Your task to perform on an android device: turn off data saver in the chrome app Image 0: 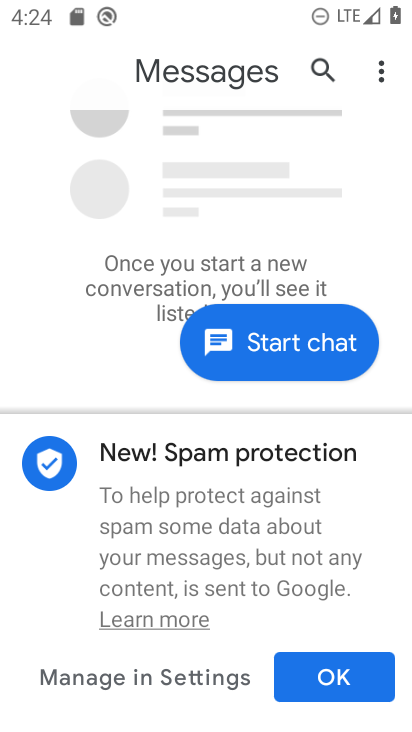
Step 0: press home button
Your task to perform on an android device: turn off data saver in the chrome app Image 1: 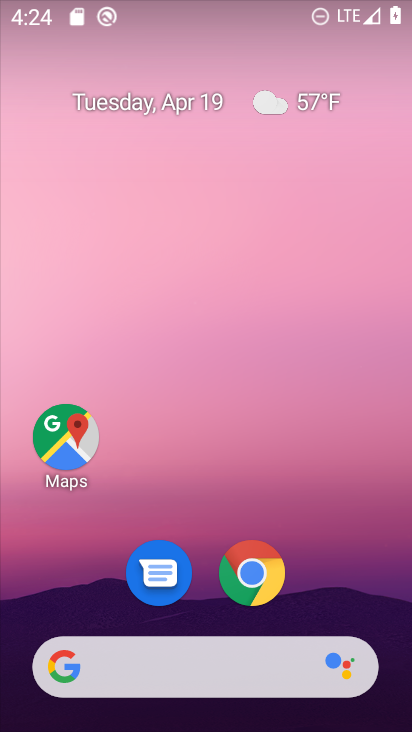
Step 1: click (260, 571)
Your task to perform on an android device: turn off data saver in the chrome app Image 2: 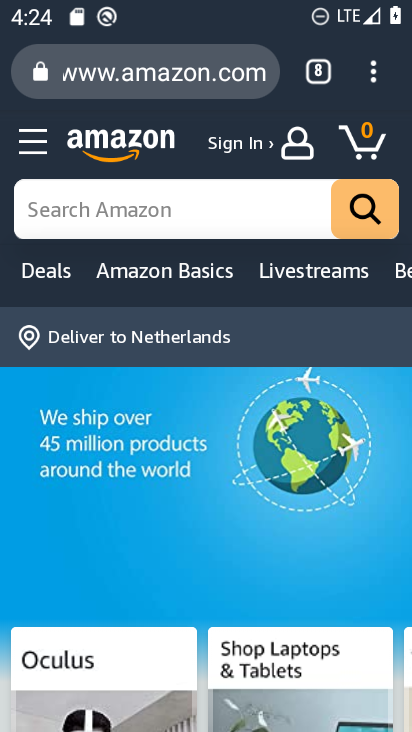
Step 2: click (370, 77)
Your task to perform on an android device: turn off data saver in the chrome app Image 3: 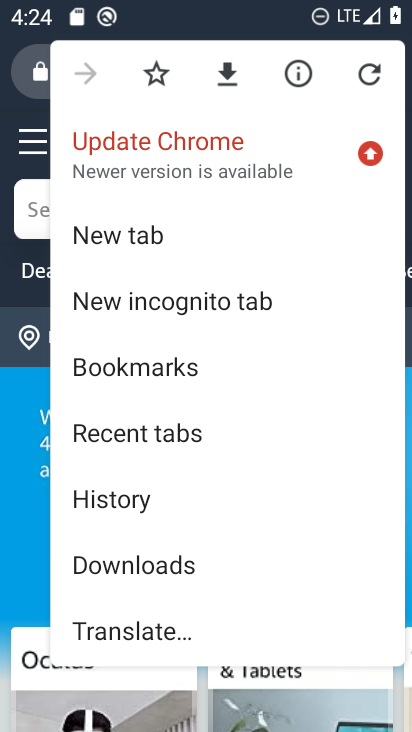
Step 3: drag from (251, 529) to (220, 181)
Your task to perform on an android device: turn off data saver in the chrome app Image 4: 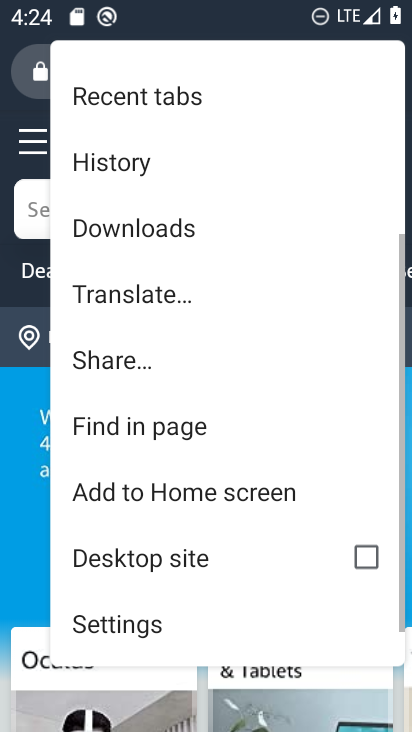
Step 4: drag from (188, 429) to (175, 202)
Your task to perform on an android device: turn off data saver in the chrome app Image 5: 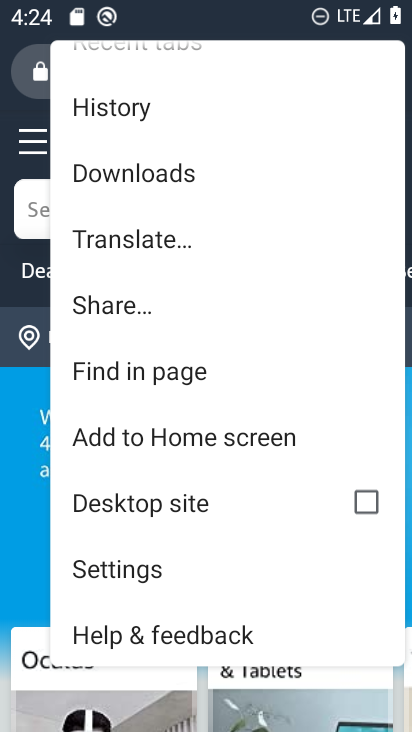
Step 5: click (146, 575)
Your task to perform on an android device: turn off data saver in the chrome app Image 6: 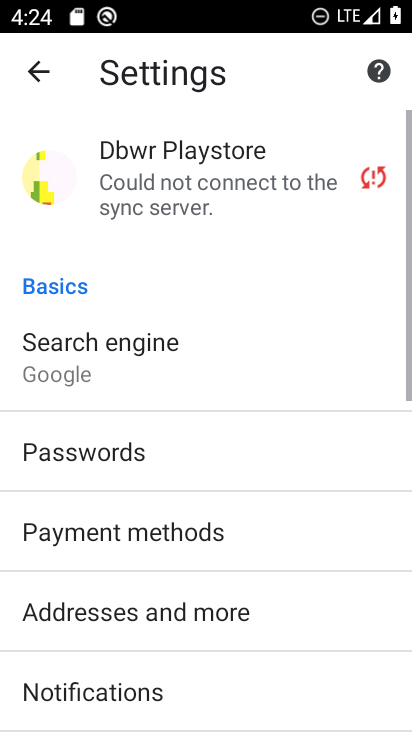
Step 6: drag from (266, 579) to (235, 223)
Your task to perform on an android device: turn off data saver in the chrome app Image 7: 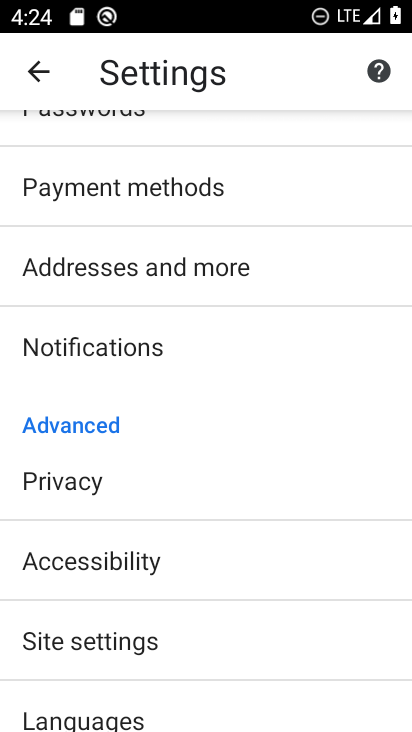
Step 7: drag from (209, 606) to (191, 305)
Your task to perform on an android device: turn off data saver in the chrome app Image 8: 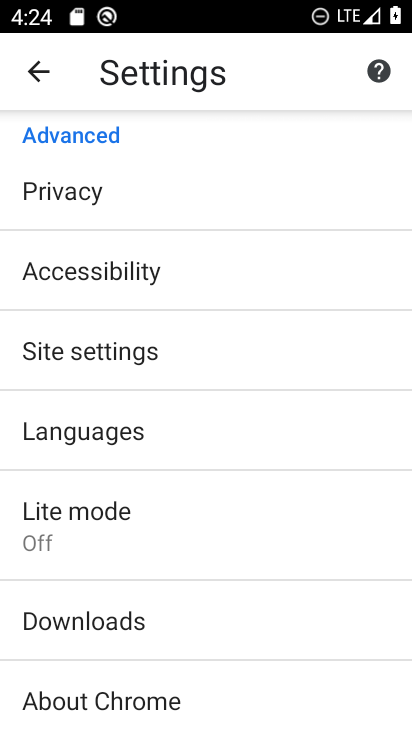
Step 8: click (93, 519)
Your task to perform on an android device: turn off data saver in the chrome app Image 9: 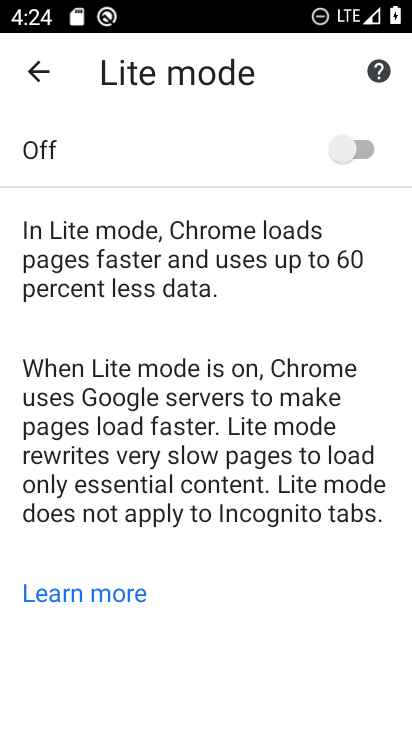
Step 9: task complete